Your task to perform on an android device: Search for sushi restaurants on Maps Image 0: 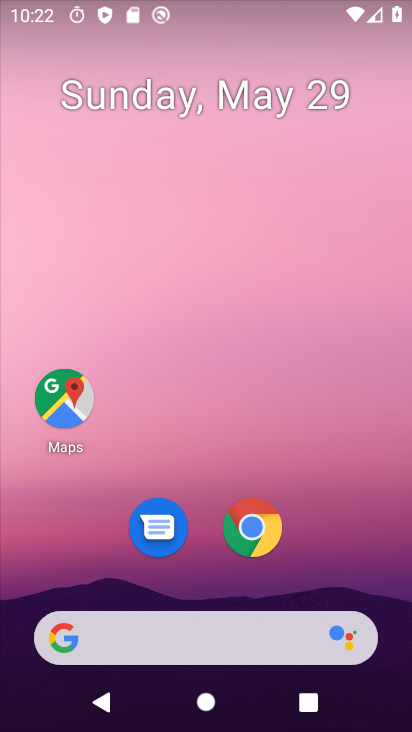
Step 0: click (62, 403)
Your task to perform on an android device: Search for sushi restaurants on Maps Image 1: 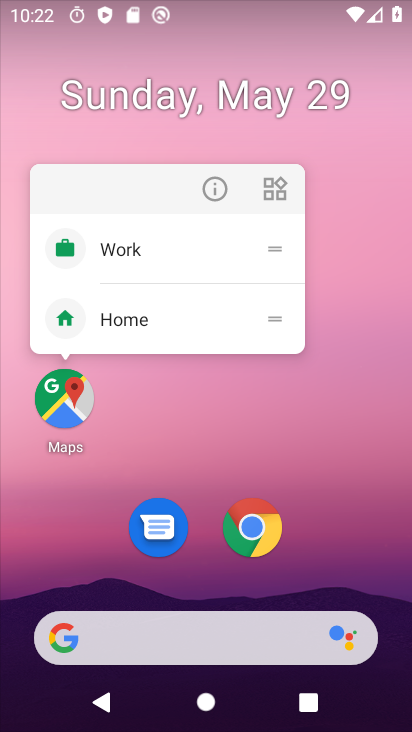
Step 1: click (64, 400)
Your task to perform on an android device: Search for sushi restaurants on Maps Image 2: 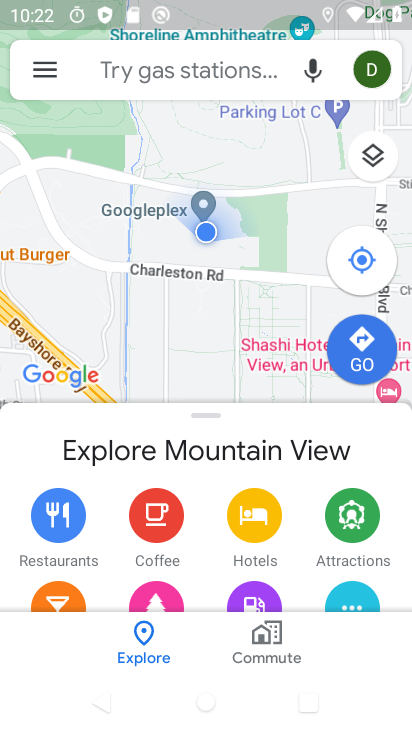
Step 2: click (183, 50)
Your task to perform on an android device: Search for sushi restaurants on Maps Image 3: 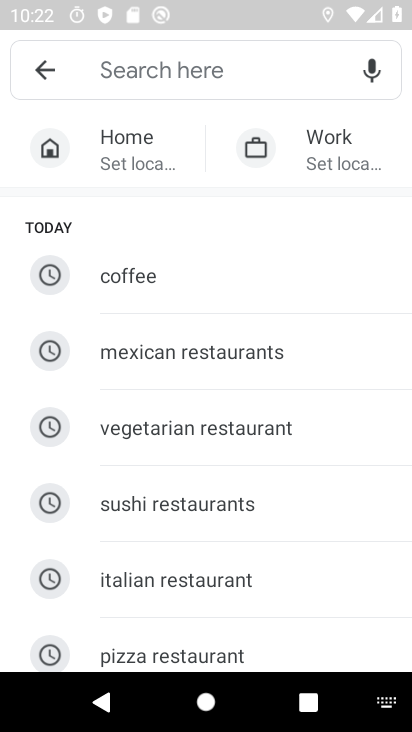
Step 3: click (232, 512)
Your task to perform on an android device: Search for sushi restaurants on Maps Image 4: 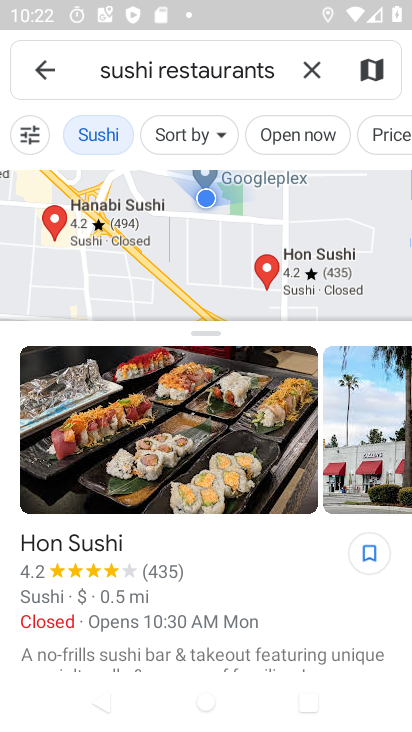
Step 4: task complete